Your task to perform on an android device: Open Yahoo.com Image 0: 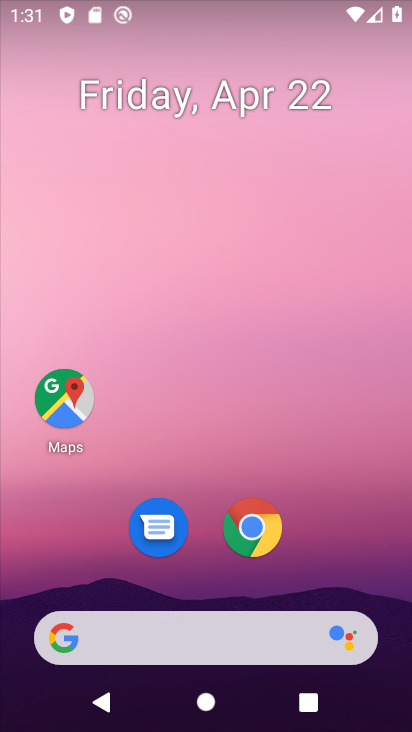
Step 0: drag from (390, 592) to (348, 69)
Your task to perform on an android device: Open Yahoo.com Image 1: 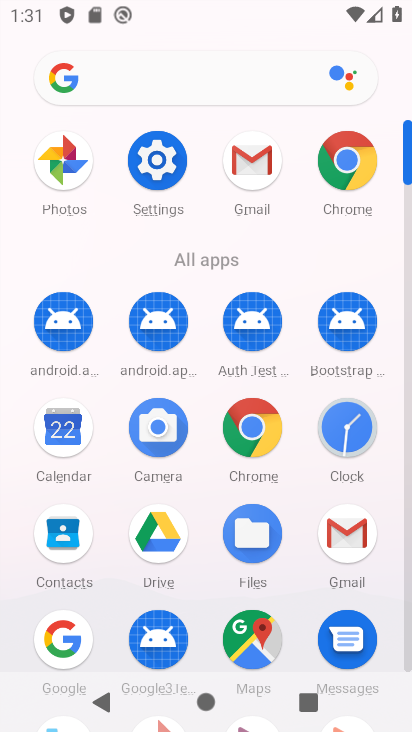
Step 1: click (269, 422)
Your task to perform on an android device: Open Yahoo.com Image 2: 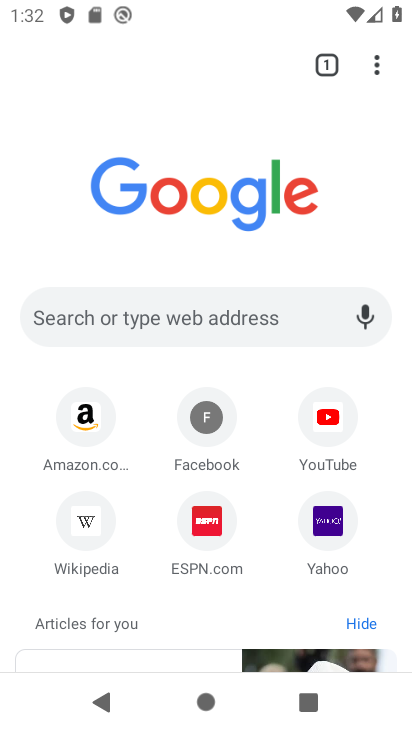
Step 2: click (327, 524)
Your task to perform on an android device: Open Yahoo.com Image 3: 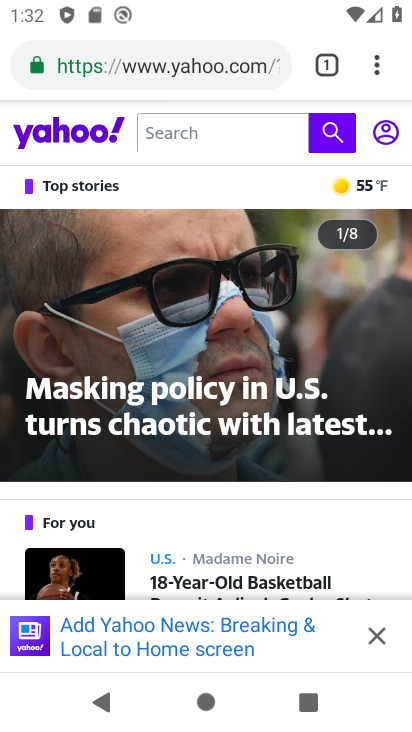
Step 3: task complete